Your task to perform on an android device: Show me productivity apps on the Play Store Image 0: 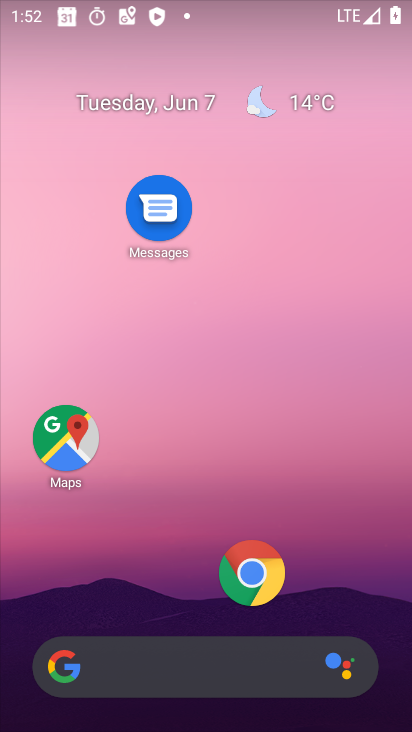
Step 0: drag from (208, 606) to (263, 152)
Your task to perform on an android device: Show me productivity apps on the Play Store Image 1: 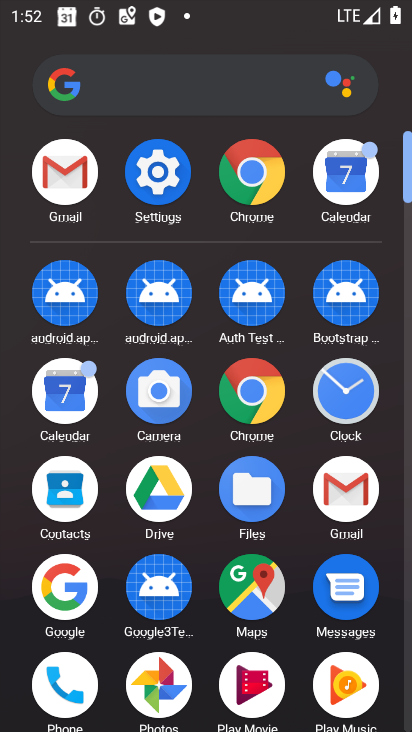
Step 1: drag from (208, 616) to (212, 168)
Your task to perform on an android device: Show me productivity apps on the Play Store Image 2: 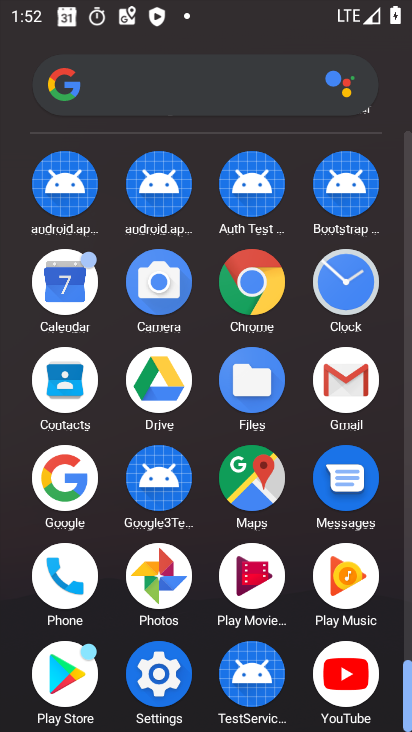
Step 2: click (63, 669)
Your task to perform on an android device: Show me productivity apps on the Play Store Image 3: 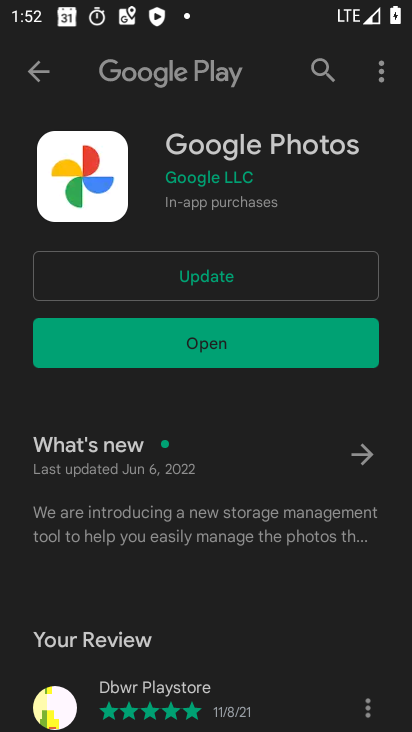
Step 3: click (38, 73)
Your task to perform on an android device: Show me productivity apps on the Play Store Image 4: 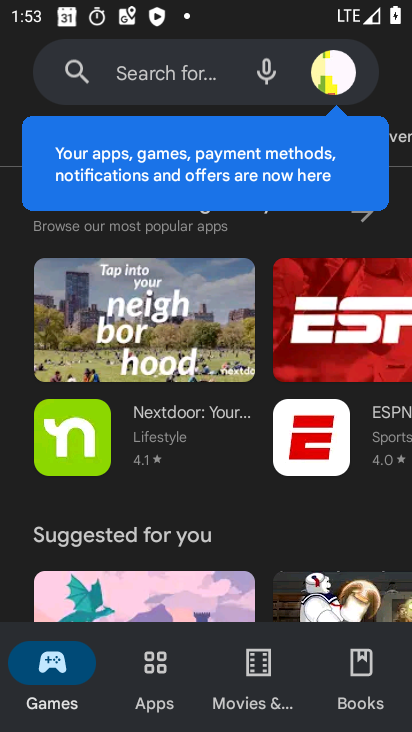
Step 4: click (154, 660)
Your task to perform on an android device: Show me productivity apps on the Play Store Image 5: 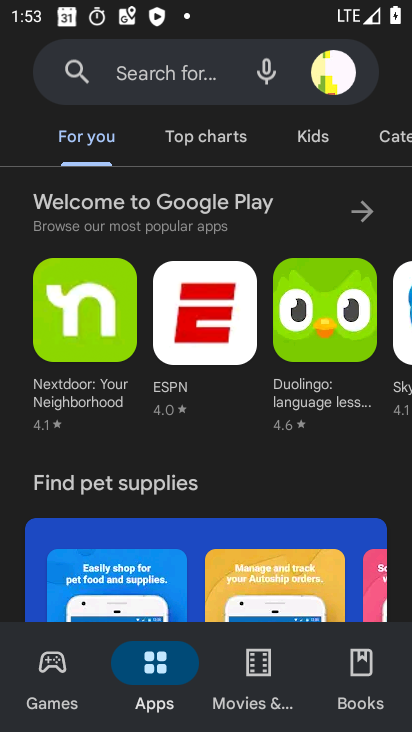
Step 5: click (390, 136)
Your task to perform on an android device: Show me productivity apps on the Play Store Image 6: 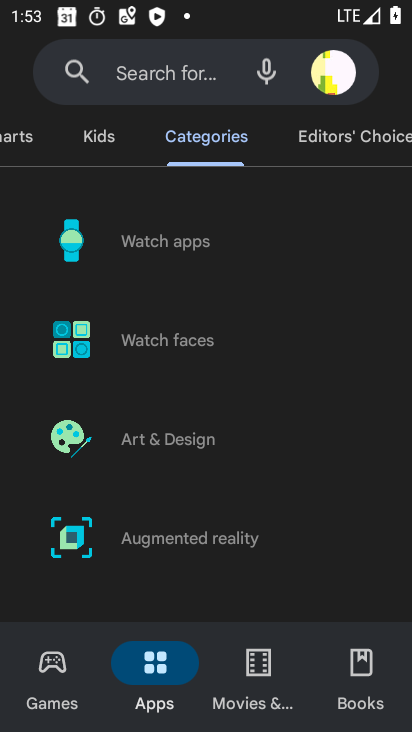
Step 6: drag from (212, 584) to (232, 38)
Your task to perform on an android device: Show me productivity apps on the Play Store Image 7: 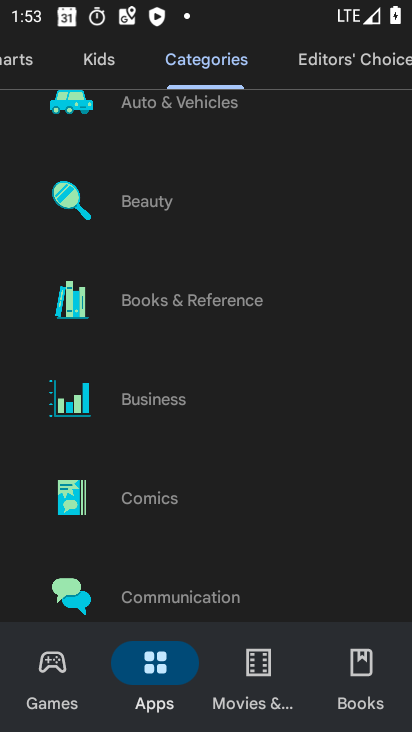
Step 7: drag from (201, 576) to (221, 2)
Your task to perform on an android device: Show me productivity apps on the Play Store Image 8: 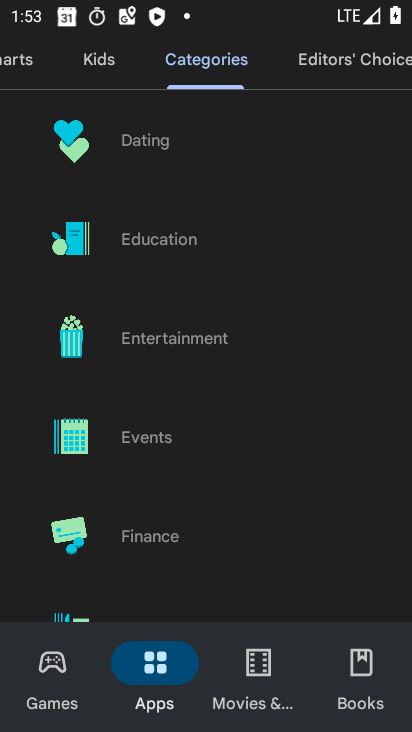
Step 8: drag from (202, 345) to (234, 3)
Your task to perform on an android device: Show me productivity apps on the Play Store Image 9: 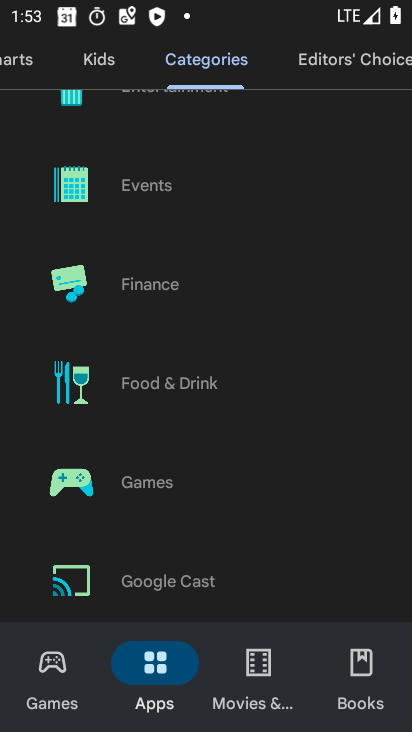
Step 9: drag from (206, 511) to (208, 59)
Your task to perform on an android device: Show me productivity apps on the Play Store Image 10: 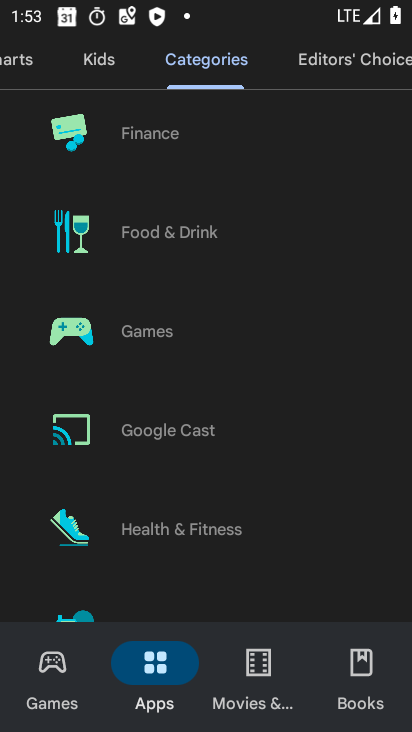
Step 10: drag from (231, 597) to (246, 268)
Your task to perform on an android device: Show me productivity apps on the Play Store Image 11: 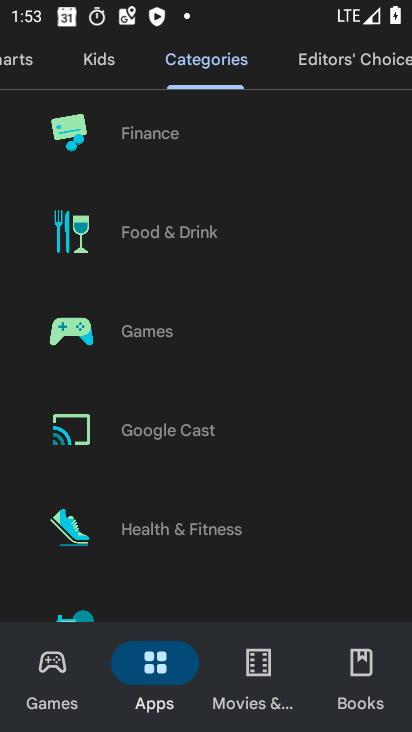
Step 11: click (247, 131)
Your task to perform on an android device: Show me productivity apps on the Play Store Image 12: 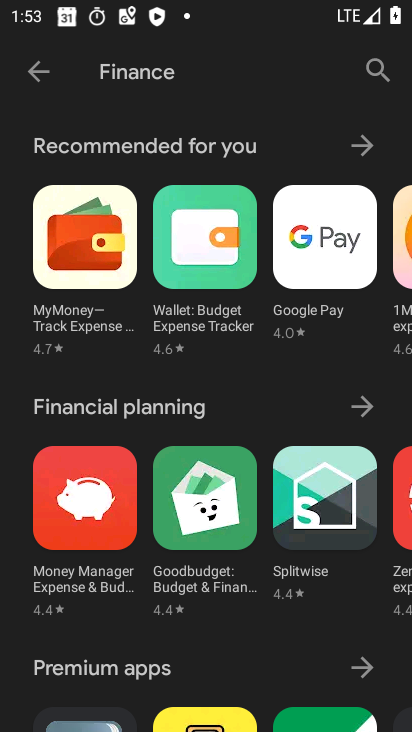
Step 12: click (46, 74)
Your task to perform on an android device: Show me productivity apps on the Play Store Image 13: 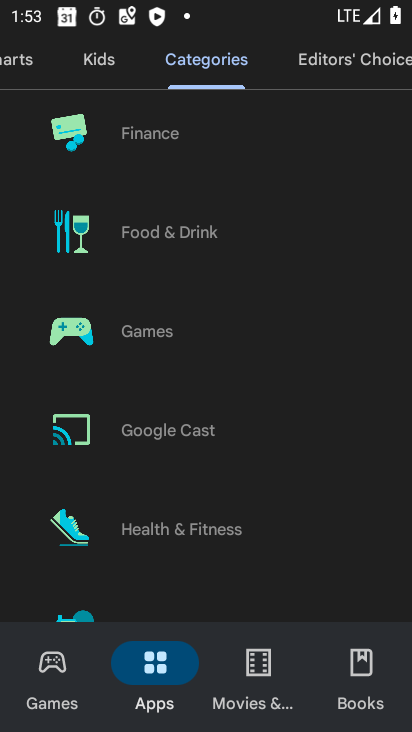
Step 13: drag from (208, 580) to (209, 103)
Your task to perform on an android device: Show me productivity apps on the Play Store Image 14: 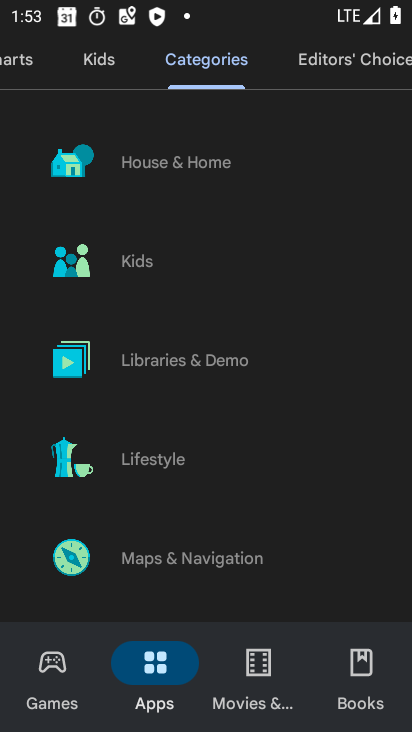
Step 14: drag from (209, 536) to (244, 113)
Your task to perform on an android device: Show me productivity apps on the Play Store Image 15: 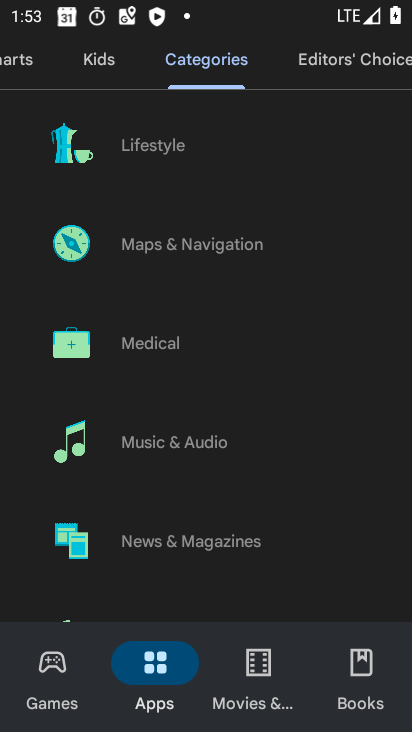
Step 15: drag from (234, 573) to (259, 115)
Your task to perform on an android device: Show me productivity apps on the Play Store Image 16: 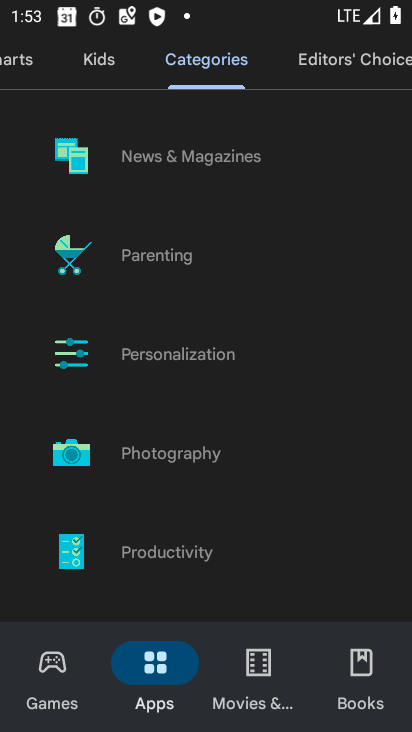
Step 16: click (203, 543)
Your task to perform on an android device: Show me productivity apps on the Play Store Image 17: 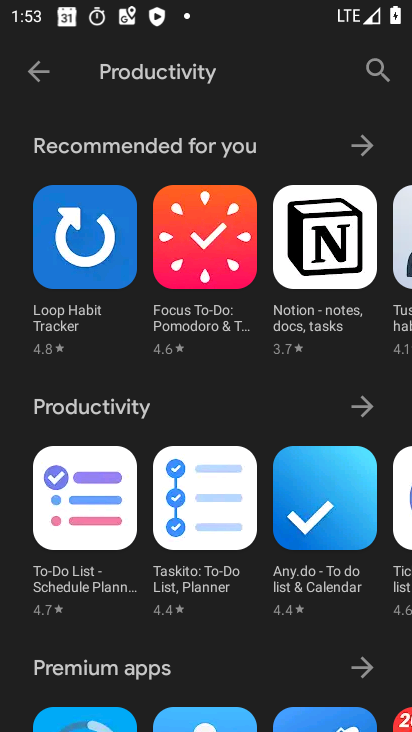
Step 17: task complete